Your task to perform on an android device: Add "macbook pro" to the cart on ebay.com Image 0: 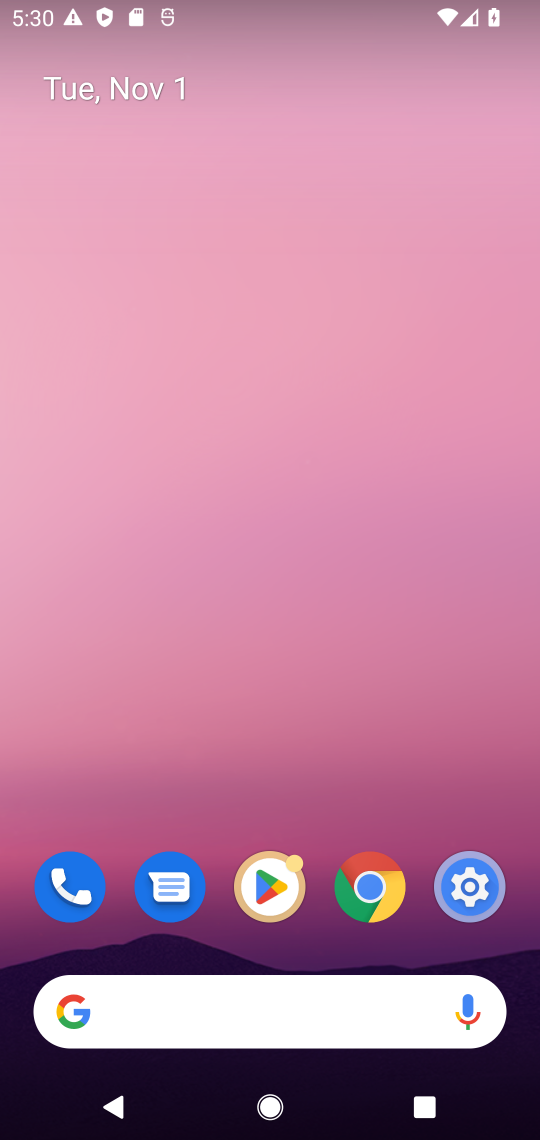
Step 0: drag from (308, 823) to (358, 0)
Your task to perform on an android device: Add "macbook pro" to the cart on ebay.com Image 1: 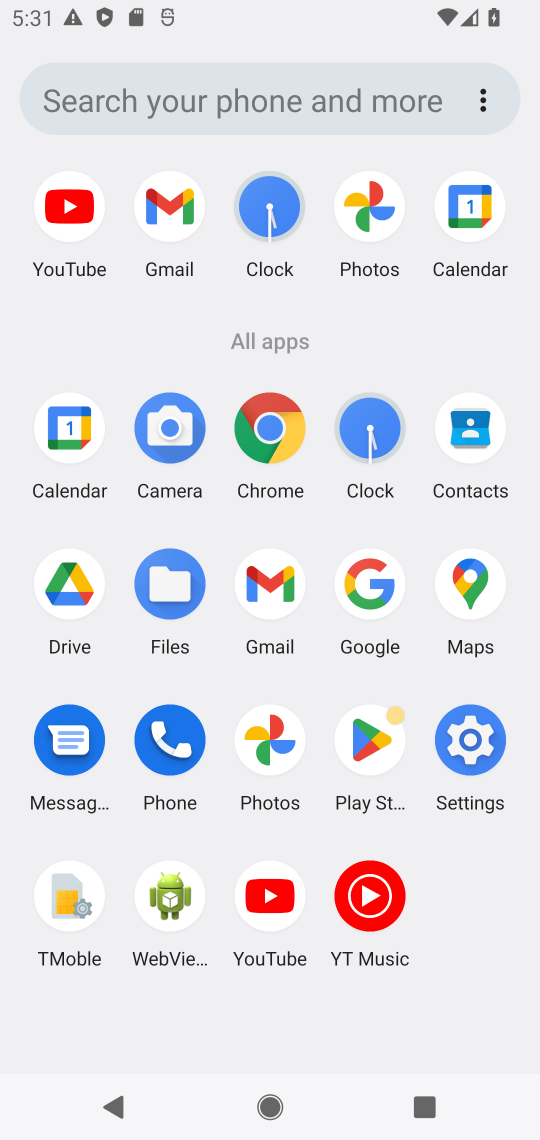
Step 1: click (265, 427)
Your task to perform on an android device: Add "macbook pro" to the cart on ebay.com Image 2: 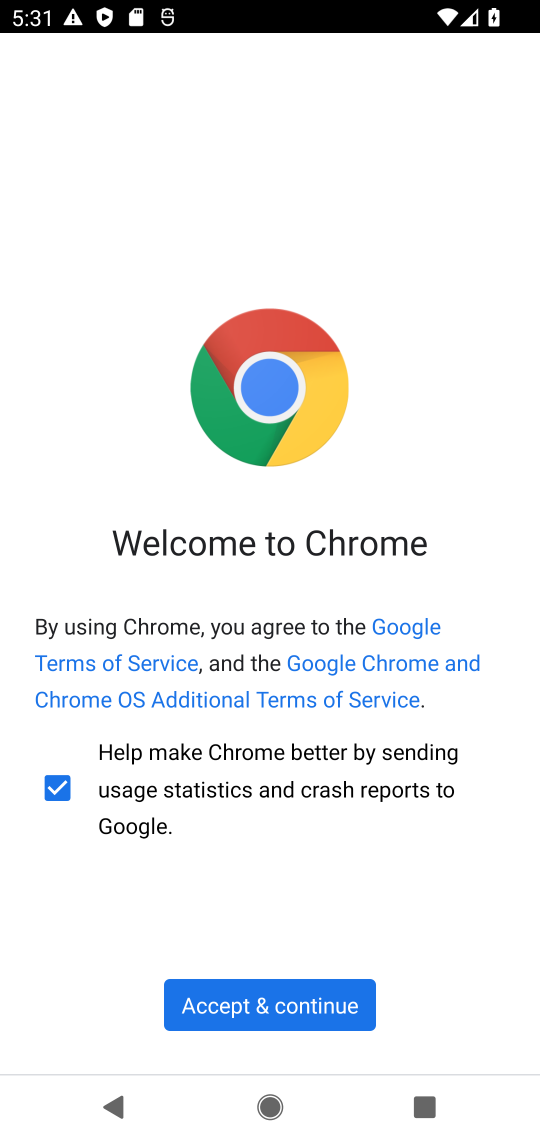
Step 2: click (272, 1003)
Your task to perform on an android device: Add "macbook pro" to the cart on ebay.com Image 3: 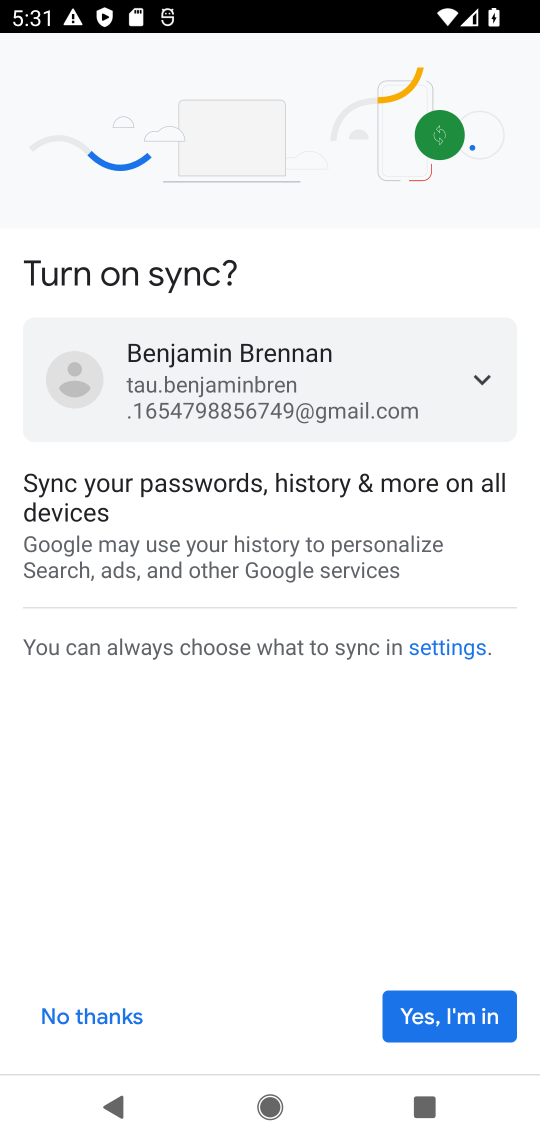
Step 3: click (429, 1019)
Your task to perform on an android device: Add "macbook pro" to the cart on ebay.com Image 4: 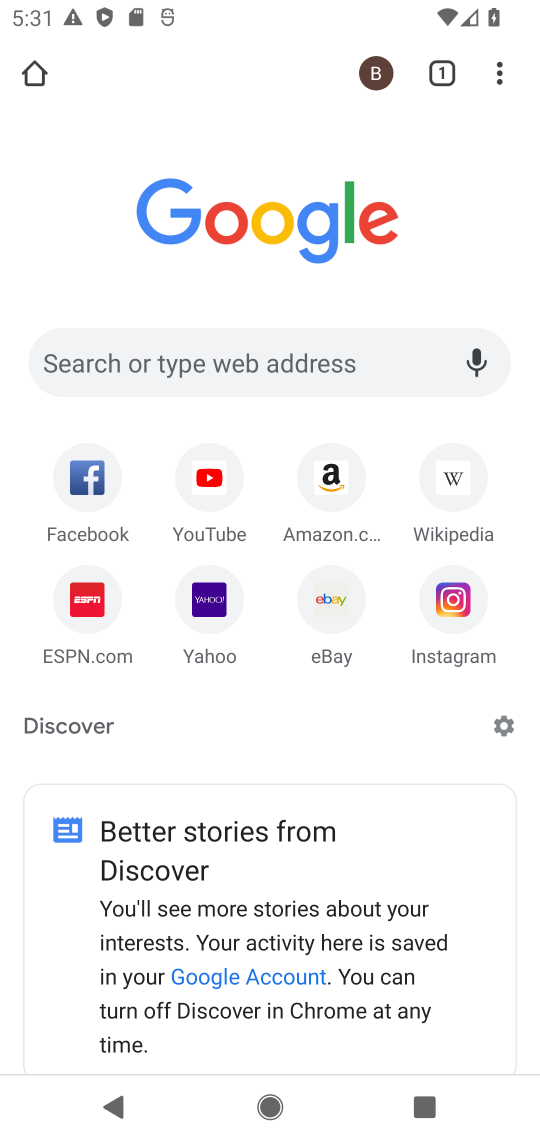
Step 4: click (181, 357)
Your task to perform on an android device: Add "macbook pro" to the cart on ebay.com Image 5: 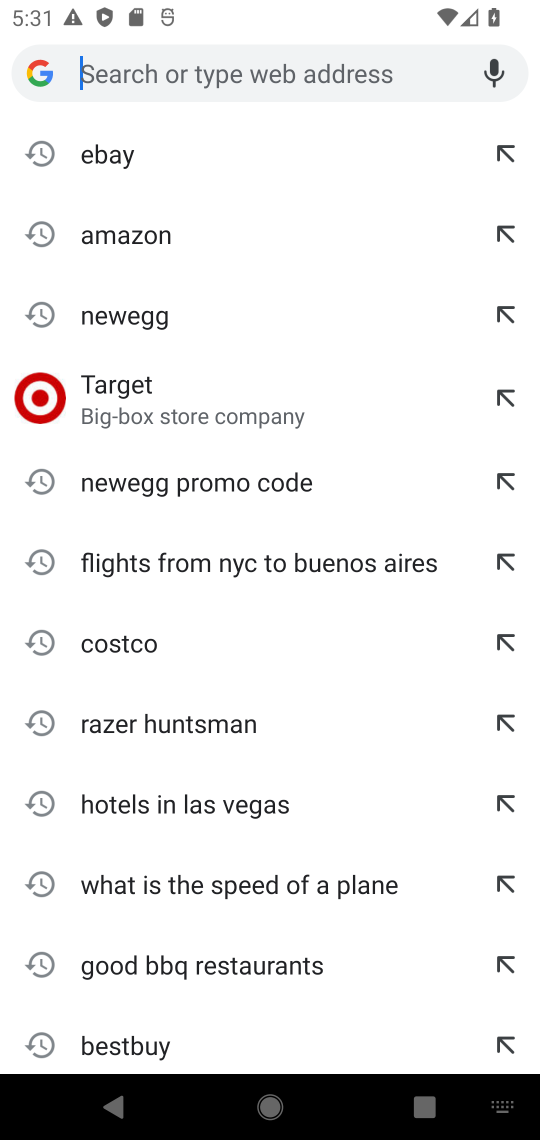
Step 5: press back button
Your task to perform on an android device: Add "macbook pro" to the cart on ebay.com Image 6: 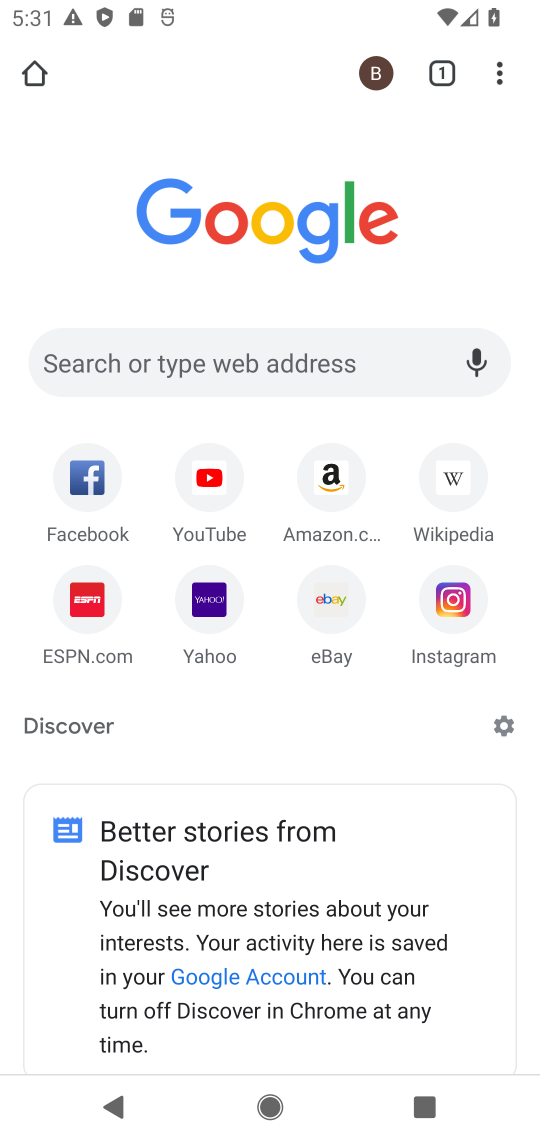
Step 6: click (335, 344)
Your task to perform on an android device: Add "macbook pro" to the cart on ebay.com Image 7: 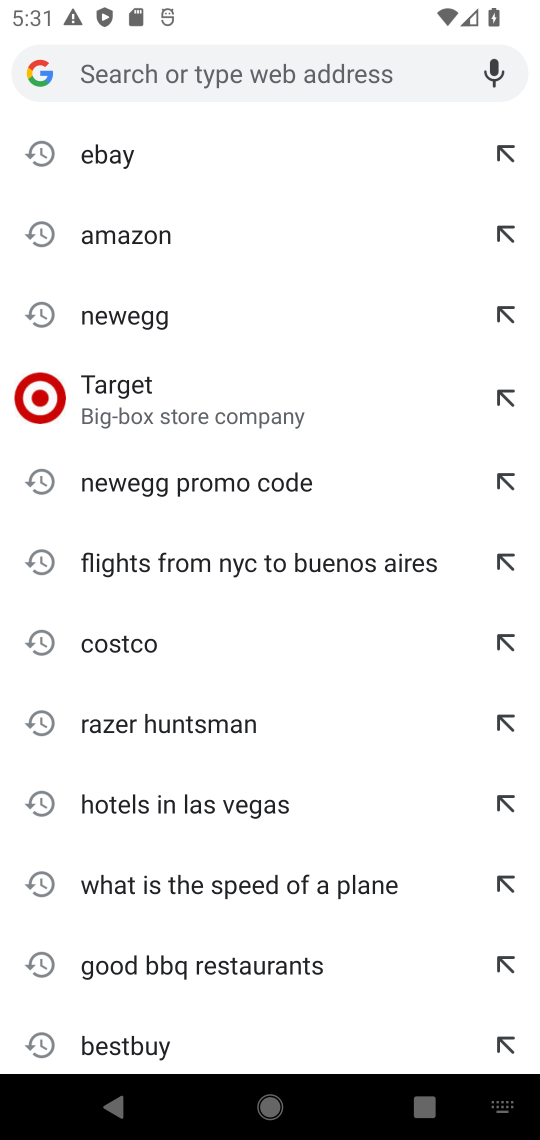
Step 7: click (333, 547)
Your task to perform on an android device: Add "macbook pro" to the cart on ebay.com Image 8: 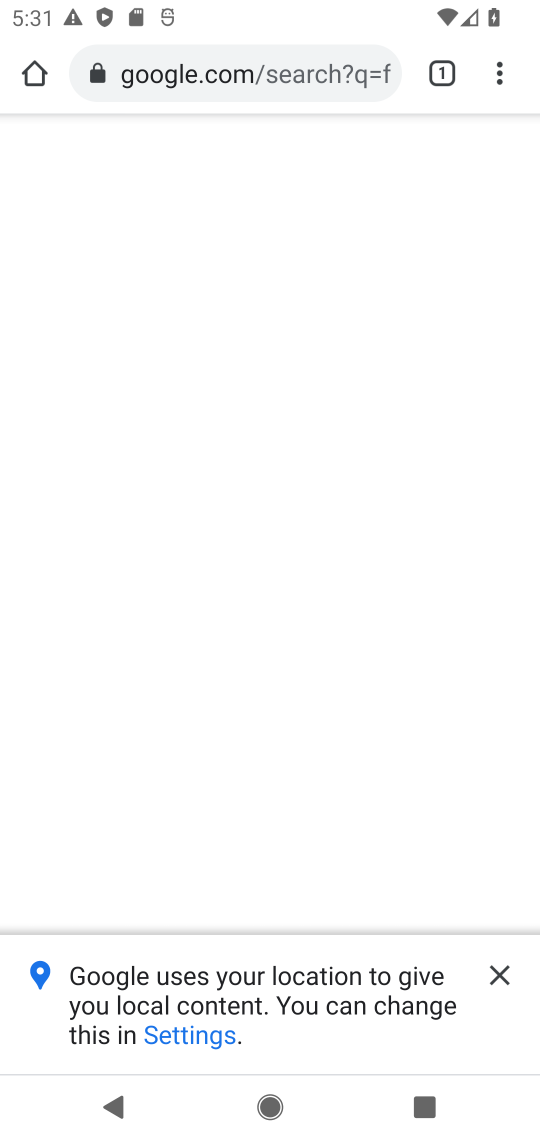
Step 8: press back button
Your task to perform on an android device: Add "macbook pro" to the cart on ebay.com Image 9: 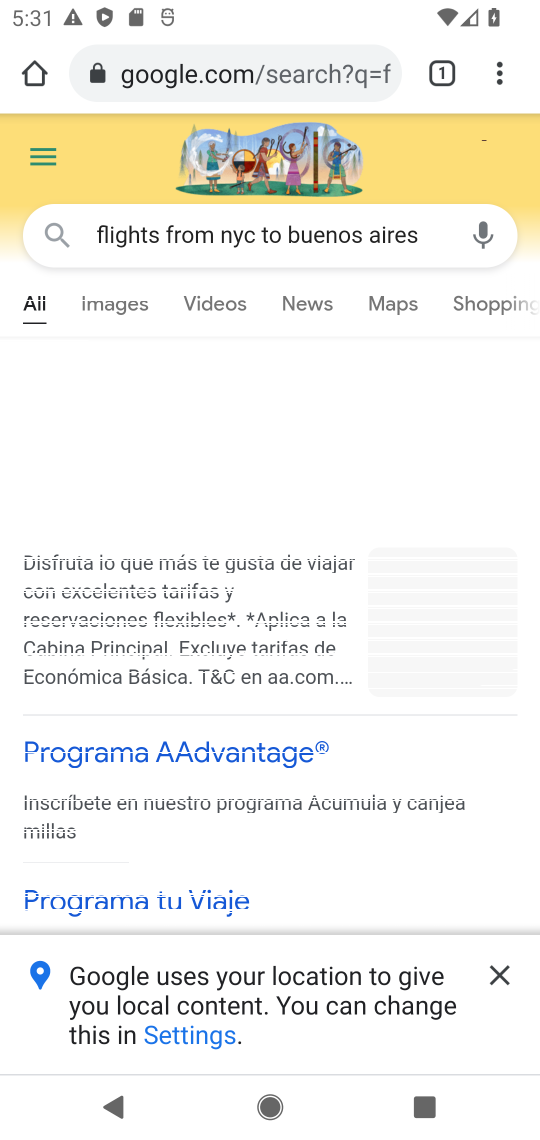
Step 9: press back button
Your task to perform on an android device: Add "macbook pro" to the cart on ebay.com Image 10: 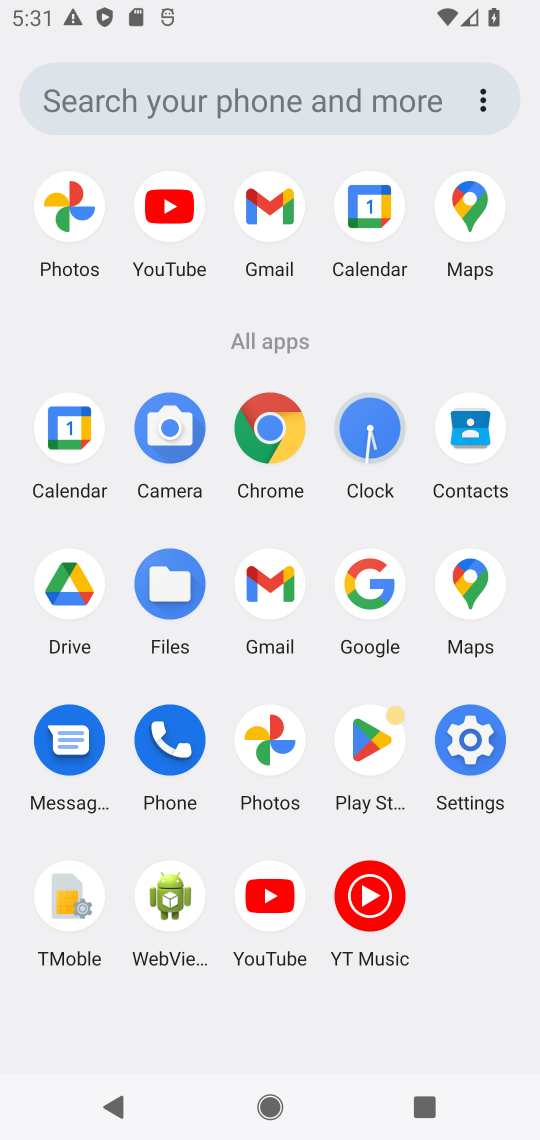
Step 10: click (277, 429)
Your task to perform on an android device: Add "macbook pro" to the cart on ebay.com Image 11: 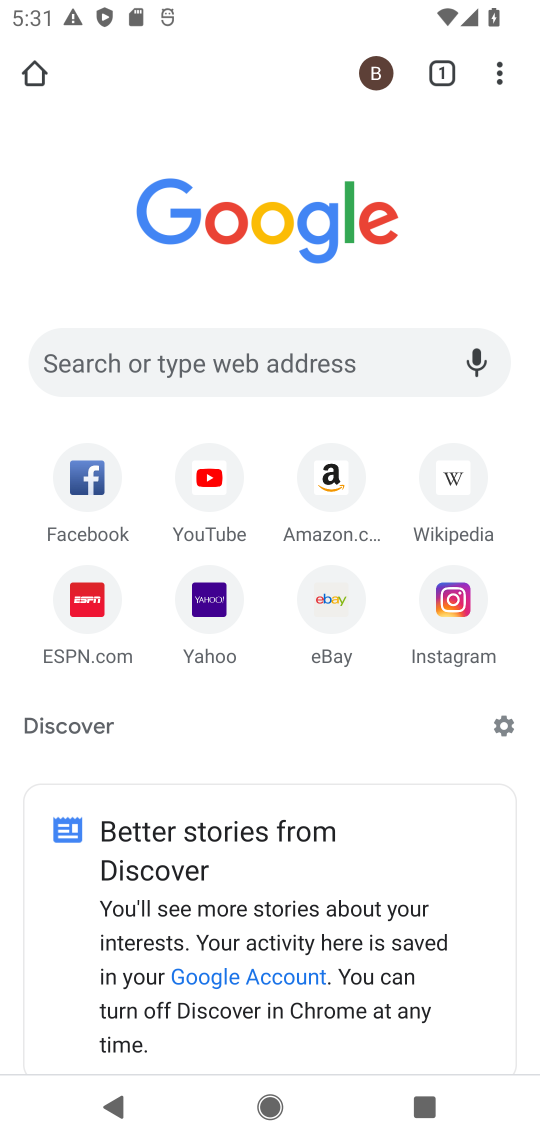
Step 11: click (328, 592)
Your task to perform on an android device: Add "macbook pro" to the cart on ebay.com Image 12: 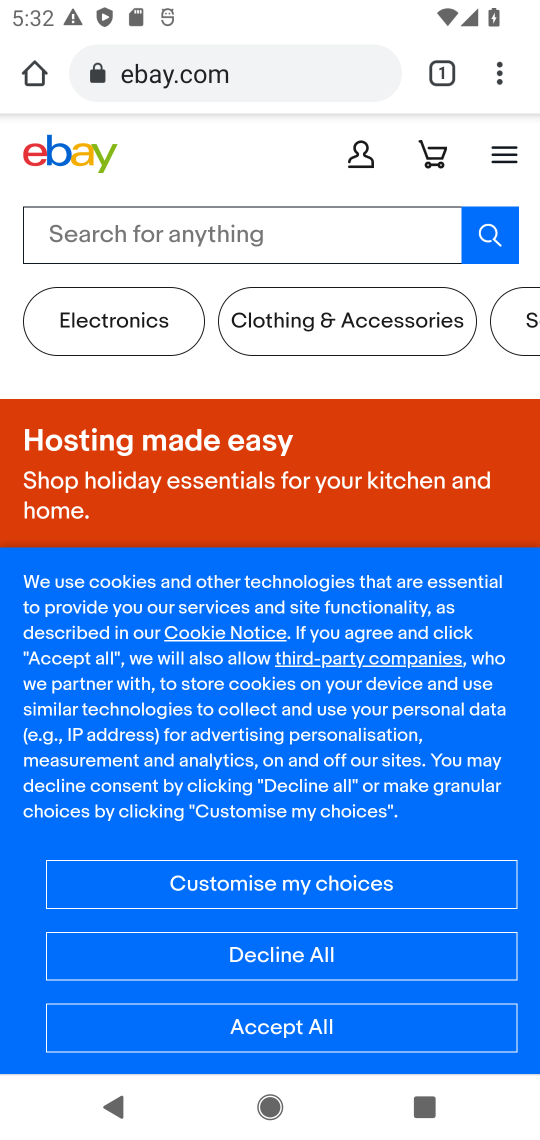
Step 12: click (281, 1040)
Your task to perform on an android device: Add "macbook pro" to the cart on ebay.com Image 13: 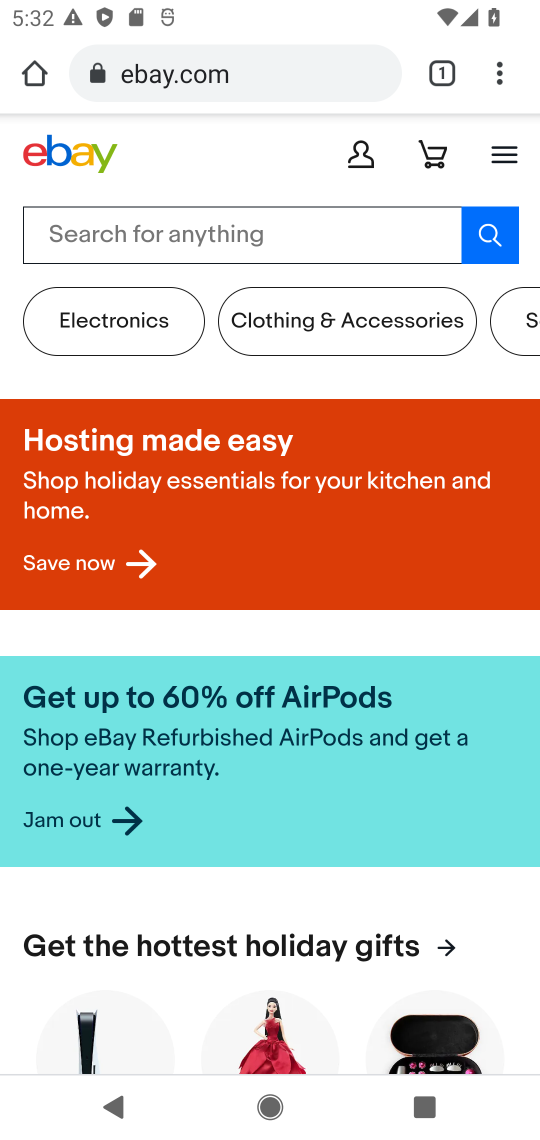
Step 13: click (137, 228)
Your task to perform on an android device: Add "macbook pro" to the cart on ebay.com Image 14: 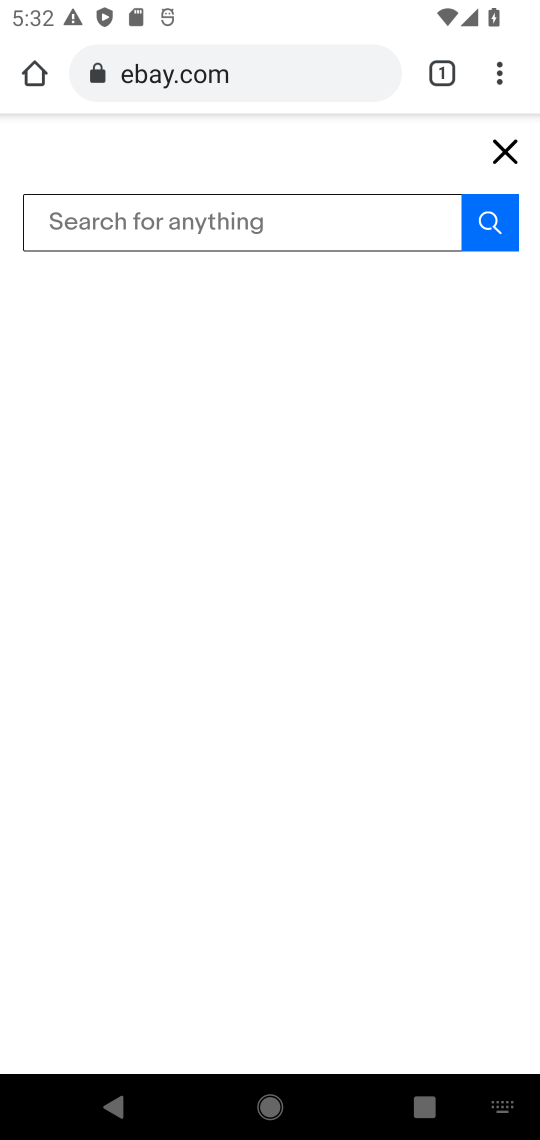
Step 14: type "macbook pro"
Your task to perform on an android device: Add "macbook pro" to the cart on ebay.com Image 15: 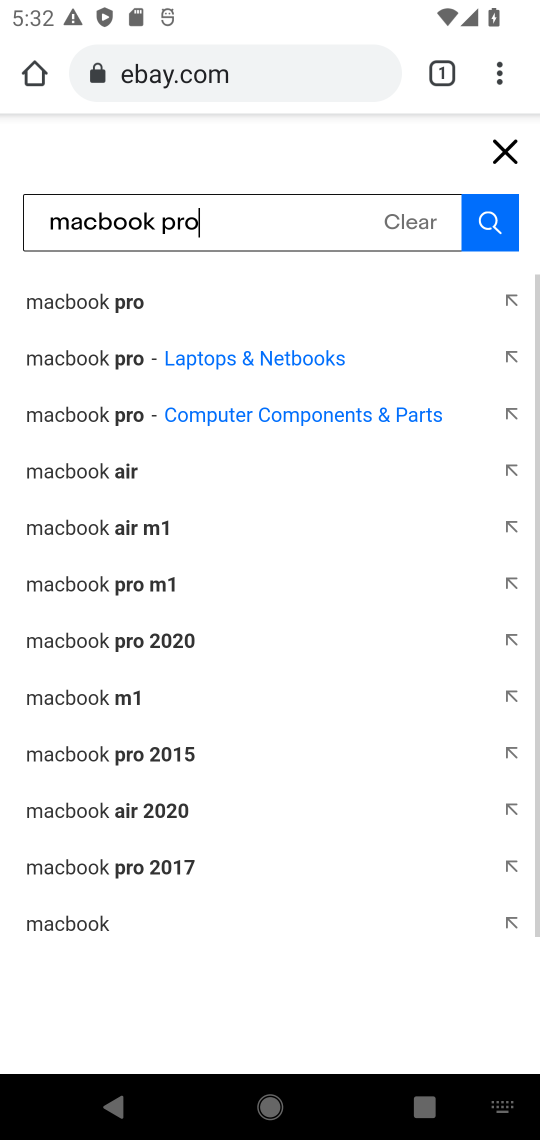
Step 15: type ""
Your task to perform on an android device: Add "macbook pro" to the cart on ebay.com Image 16: 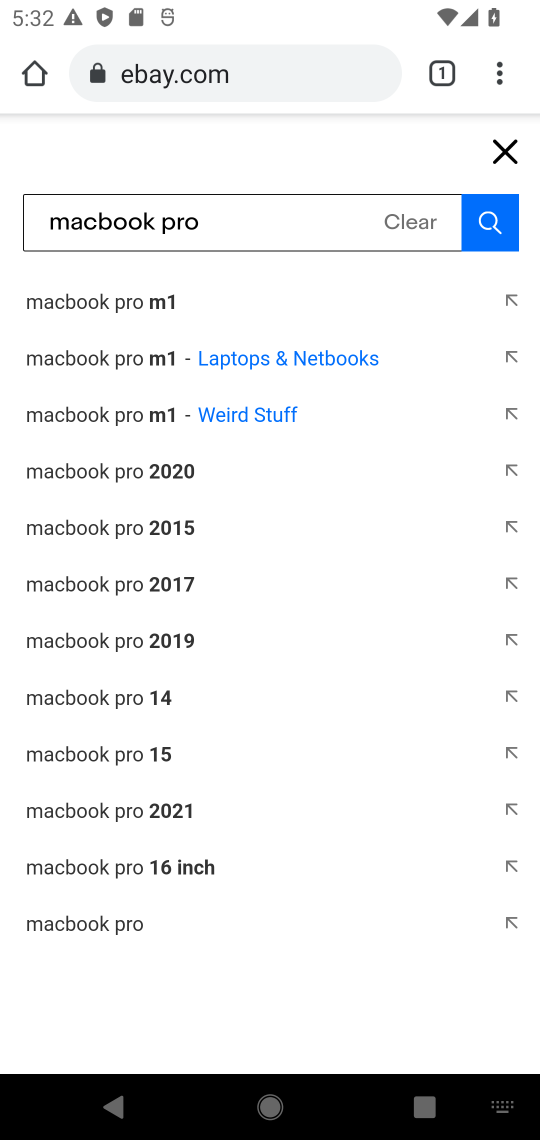
Step 16: click (245, 353)
Your task to perform on an android device: Add "macbook pro" to the cart on ebay.com Image 17: 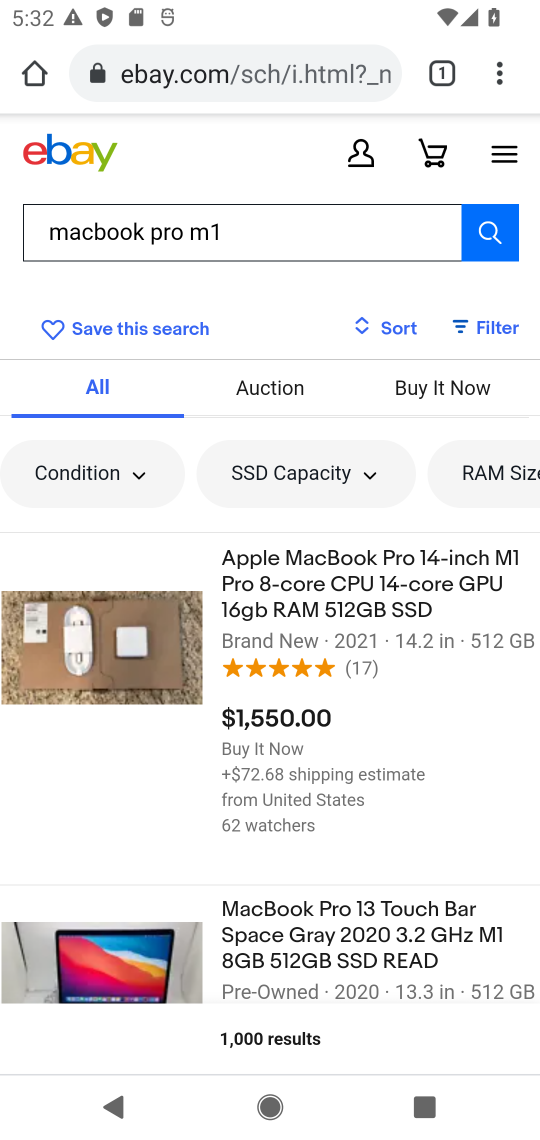
Step 17: click (333, 629)
Your task to perform on an android device: Add "macbook pro" to the cart on ebay.com Image 18: 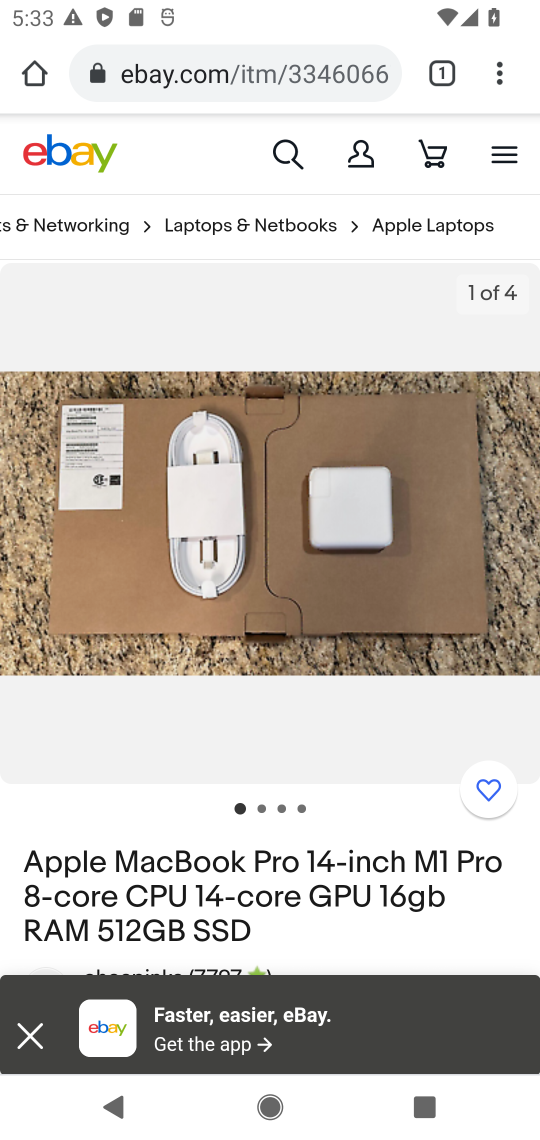
Step 18: drag from (289, 851) to (321, 267)
Your task to perform on an android device: Add "macbook pro" to the cart on ebay.com Image 19: 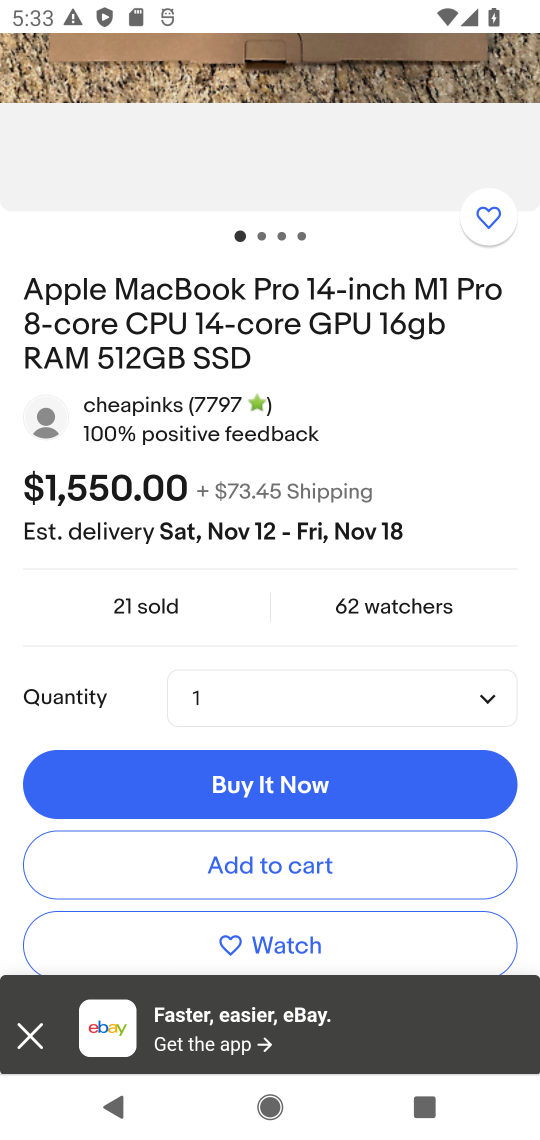
Step 19: drag from (360, 726) to (397, 364)
Your task to perform on an android device: Add "macbook pro" to the cart on ebay.com Image 20: 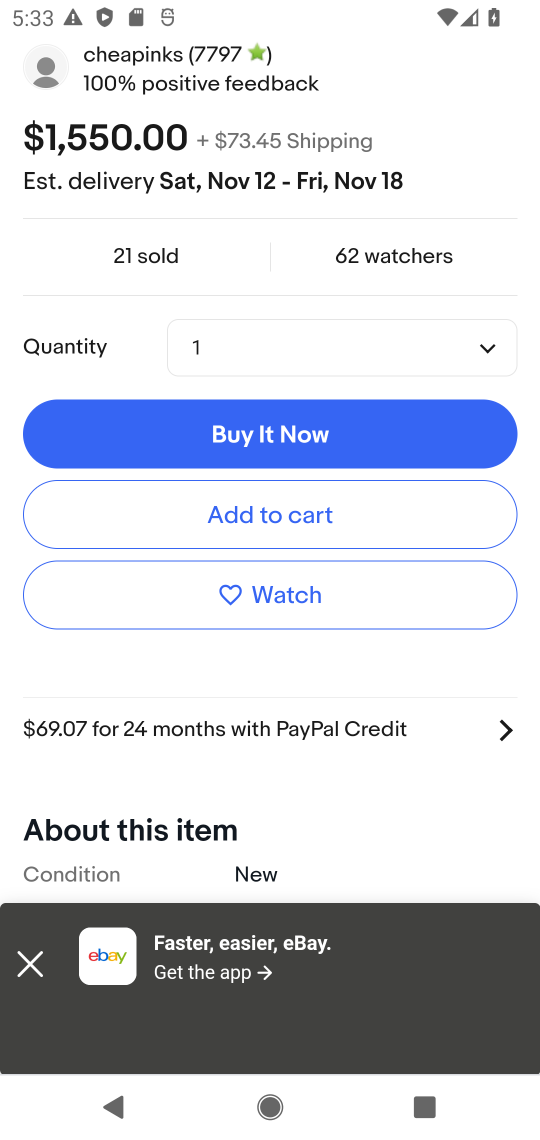
Step 20: click (259, 519)
Your task to perform on an android device: Add "macbook pro" to the cart on ebay.com Image 21: 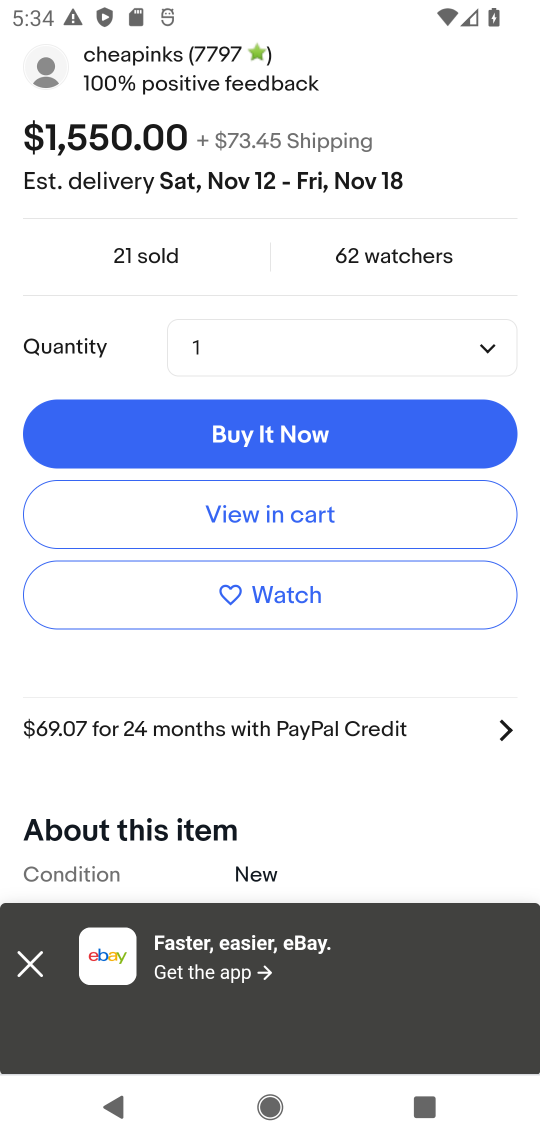
Step 21: click (264, 519)
Your task to perform on an android device: Add "macbook pro" to the cart on ebay.com Image 22: 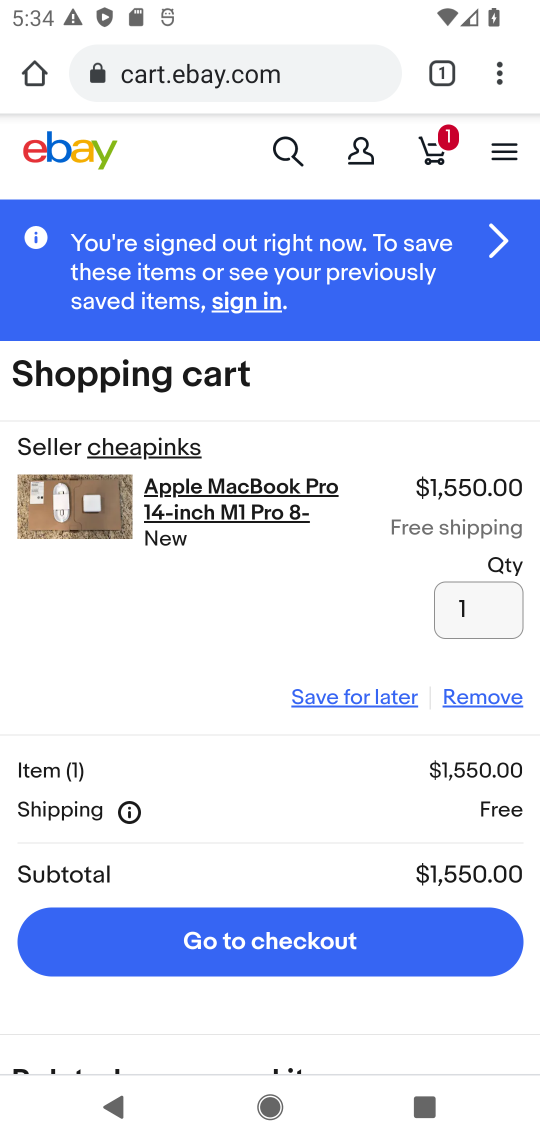
Step 22: task complete